Your task to perform on an android device: toggle improve location accuracy Image 0: 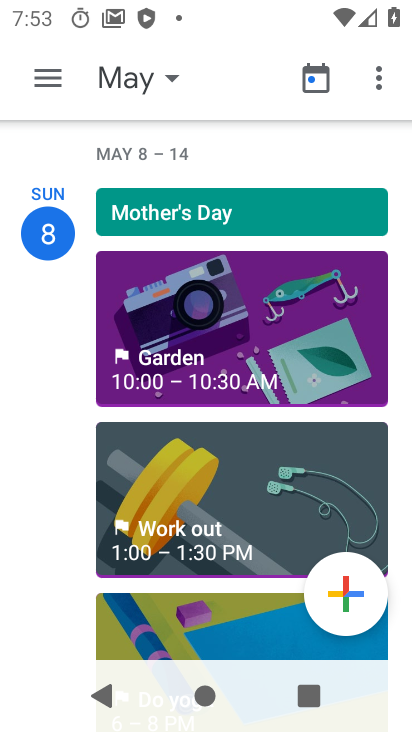
Step 0: press home button
Your task to perform on an android device: toggle improve location accuracy Image 1: 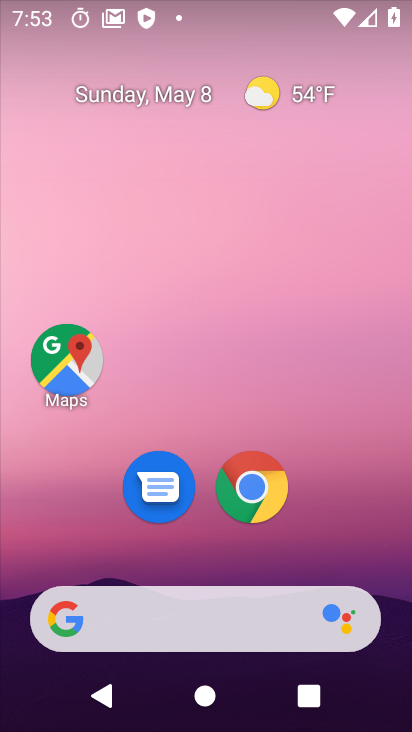
Step 1: drag from (291, 509) to (295, 105)
Your task to perform on an android device: toggle improve location accuracy Image 2: 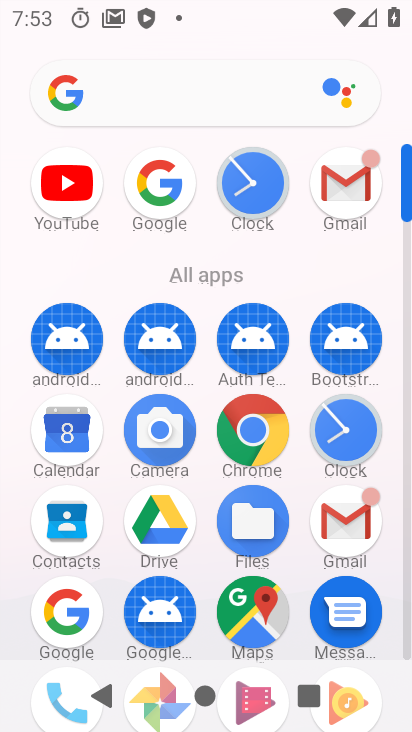
Step 2: drag from (295, 236) to (297, 10)
Your task to perform on an android device: toggle improve location accuracy Image 3: 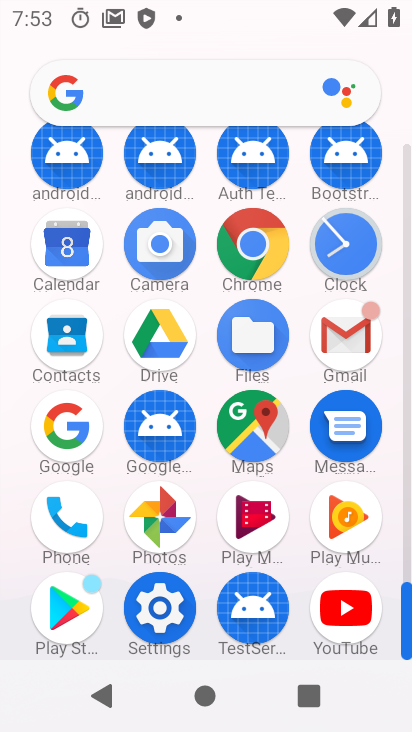
Step 3: click (158, 603)
Your task to perform on an android device: toggle improve location accuracy Image 4: 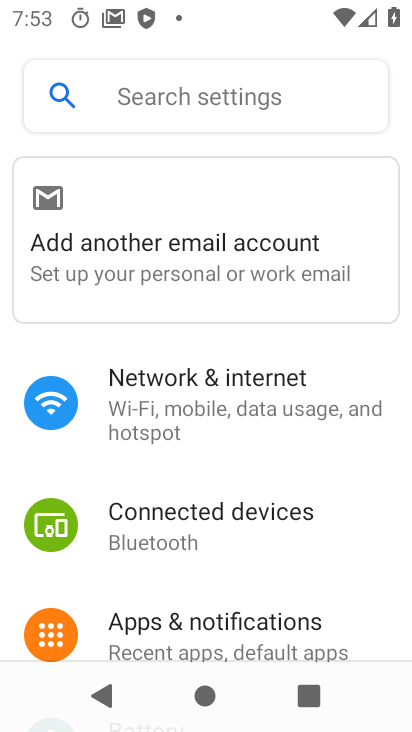
Step 4: drag from (342, 586) to (316, 148)
Your task to perform on an android device: toggle improve location accuracy Image 5: 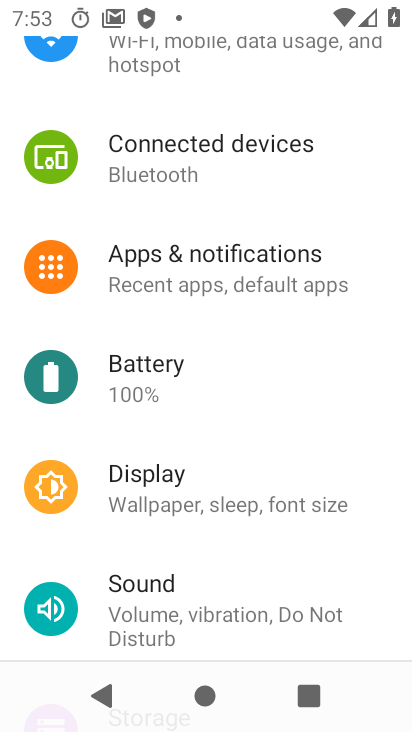
Step 5: drag from (368, 620) to (344, 198)
Your task to perform on an android device: toggle improve location accuracy Image 6: 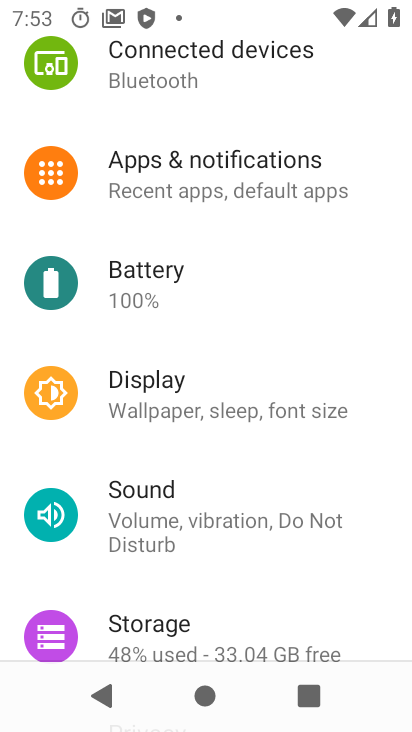
Step 6: drag from (202, 574) to (234, 245)
Your task to perform on an android device: toggle improve location accuracy Image 7: 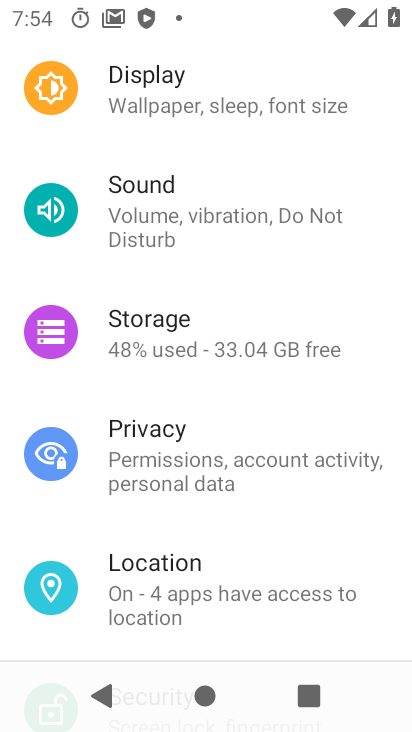
Step 7: click (159, 588)
Your task to perform on an android device: toggle improve location accuracy Image 8: 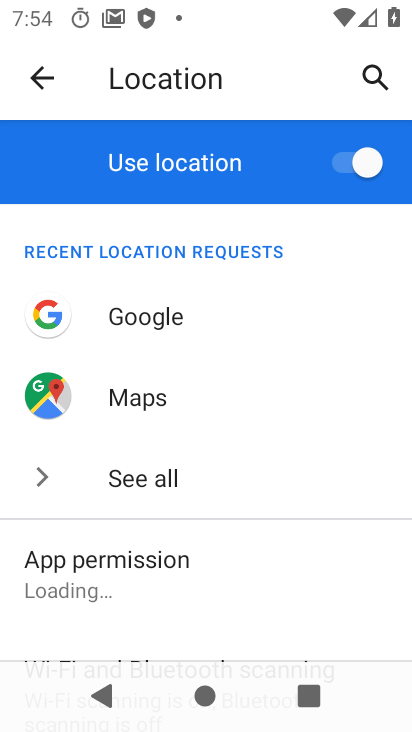
Step 8: drag from (341, 558) to (341, 322)
Your task to perform on an android device: toggle improve location accuracy Image 9: 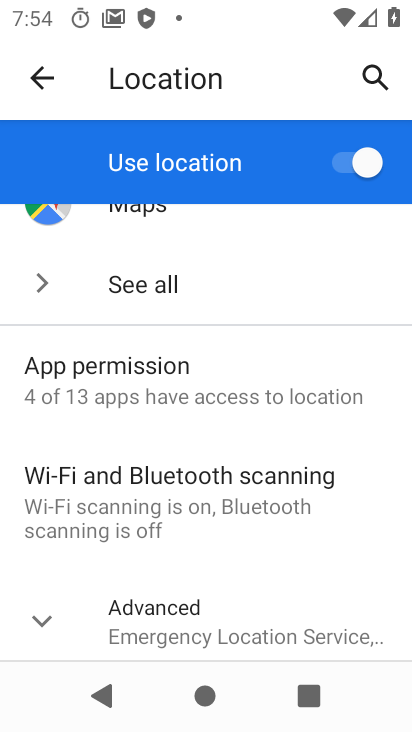
Step 9: click (128, 621)
Your task to perform on an android device: toggle improve location accuracy Image 10: 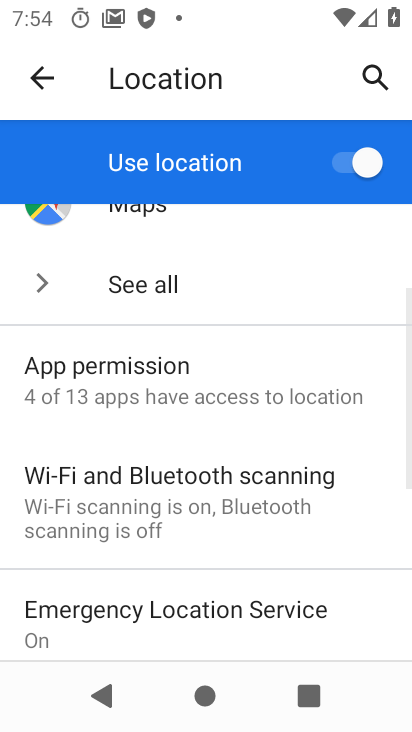
Step 10: drag from (297, 547) to (299, 264)
Your task to perform on an android device: toggle improve location accuracy Image 11: 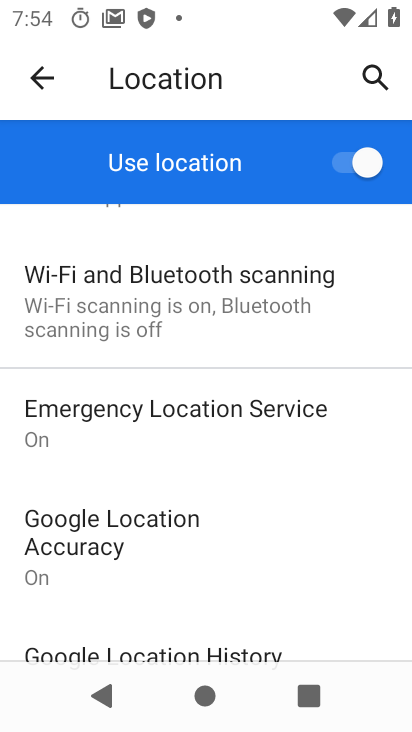
Step 11: click (97, 538)
Your task to perform on an android device: toggle improve location accuracy Image 12: 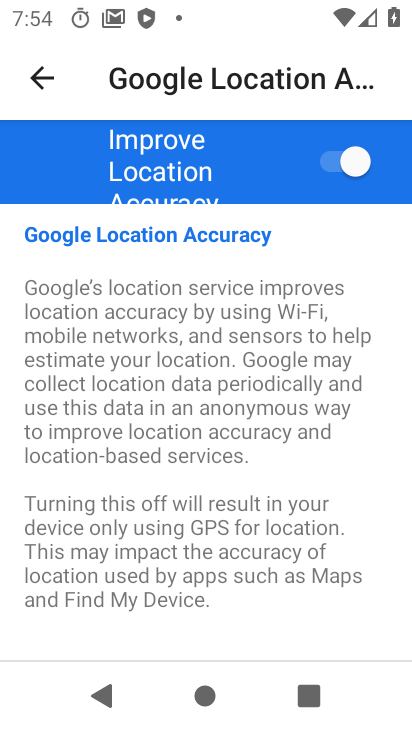
Step 12: click (336, 162)
Your task to perform on an android device: toggle improve location accuracy Image 13: 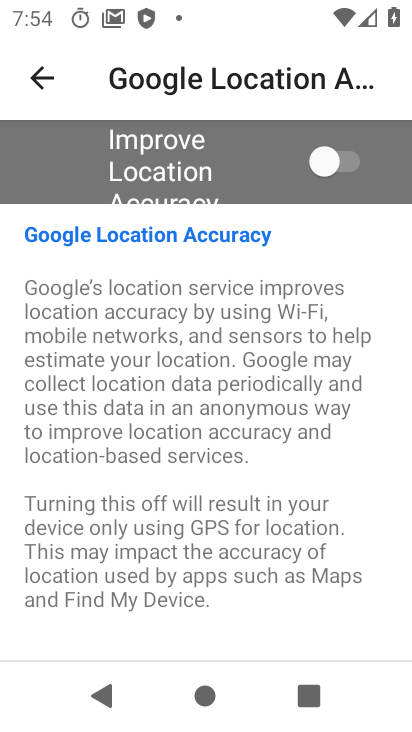
Step 13: task complete